Your task to perform on an android device: Search for the best movies of 2019  Image 0: 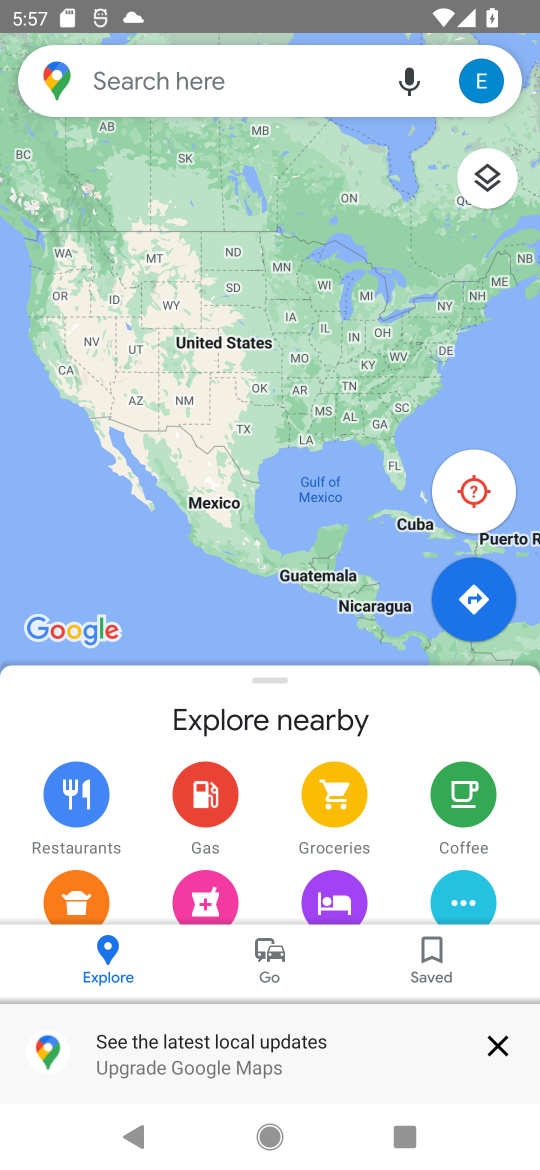
Step 0: press home button
Your task to perform on an android device: Search for the best movies of 2019  Image 1: 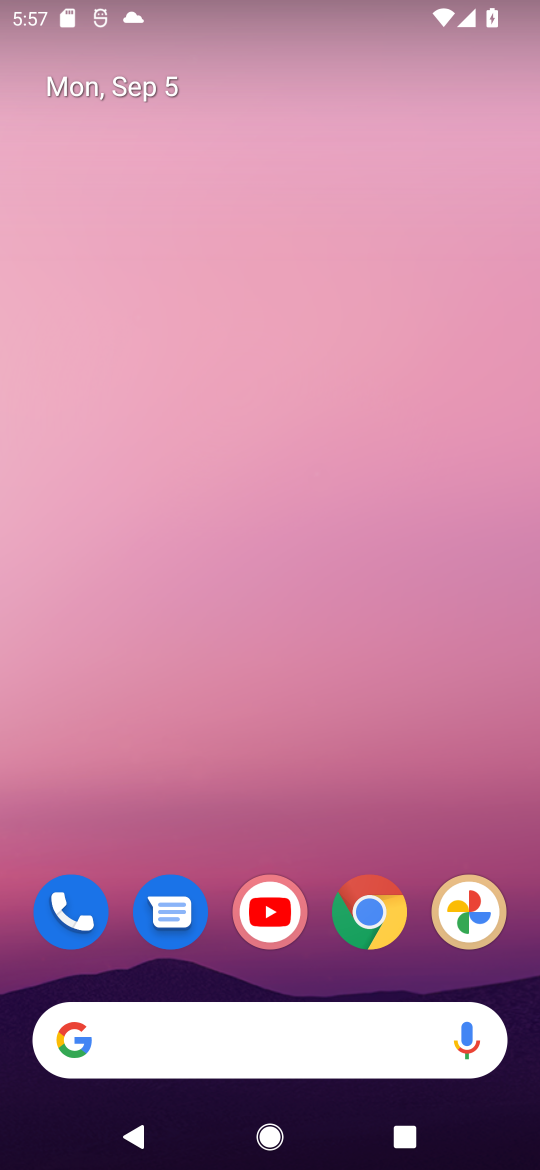
Step 1: click (366, 902)
Your task to perform on an android device: Search for the best movies of 2019  Image 2: 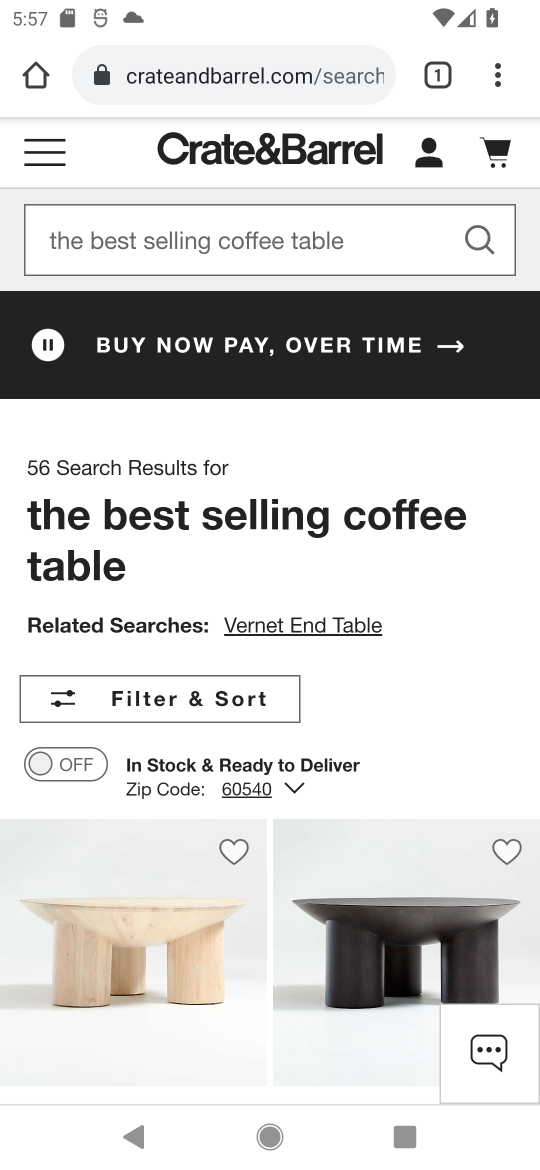
Step 2: click (268, 58)
Your task to perform on an android device: Search for the best movies of 2019  Image 3: 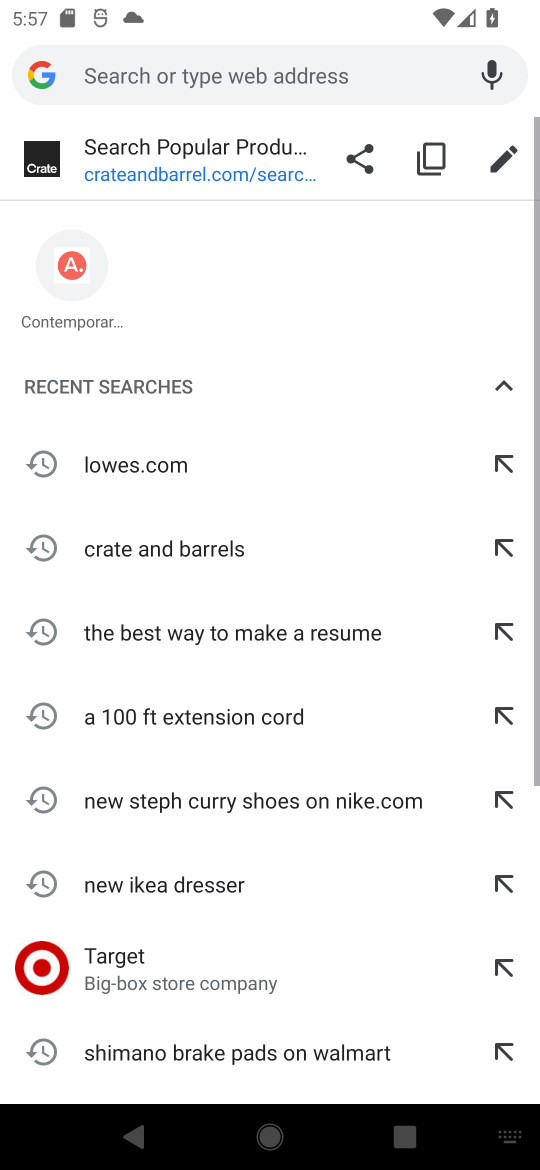
Step 3: type " the best movies of 2019"
Your task to perform on an android device: Search for the best movies of 2019  Image 4: 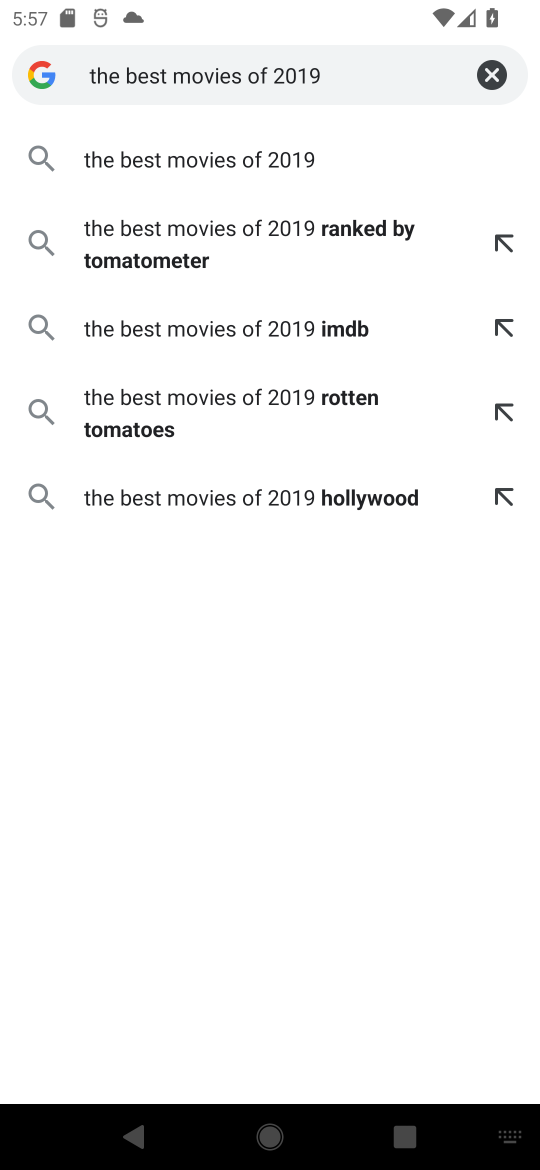
Step 4: click (173, 164)
Your task to perform on an android device: Search for the best movies of 2019  Image 5: 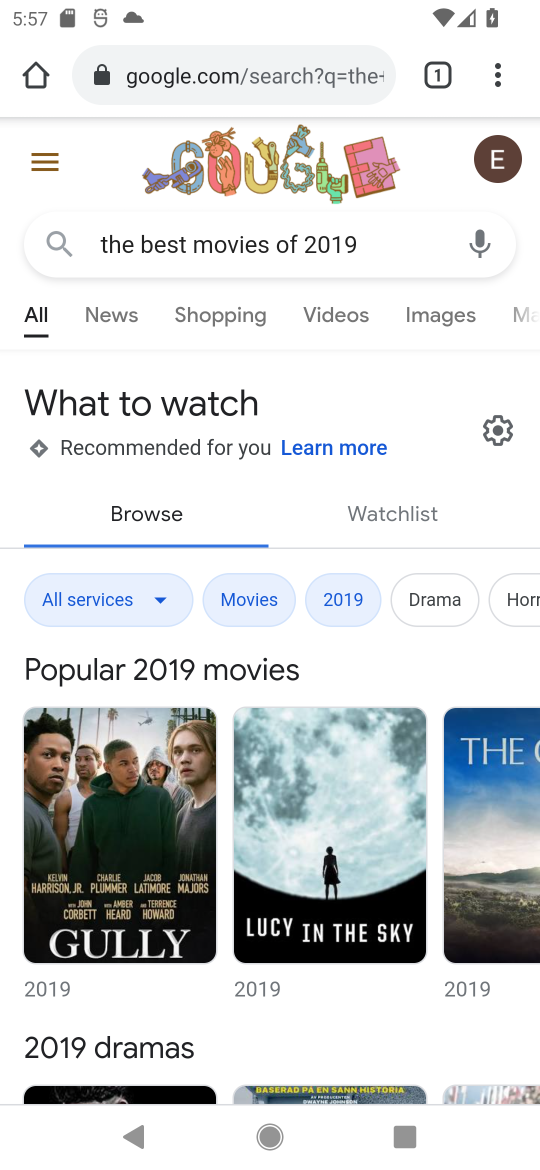
Step 5: task complete